Your task to perform on an android device: uninstall "PlayWell" Image 0: 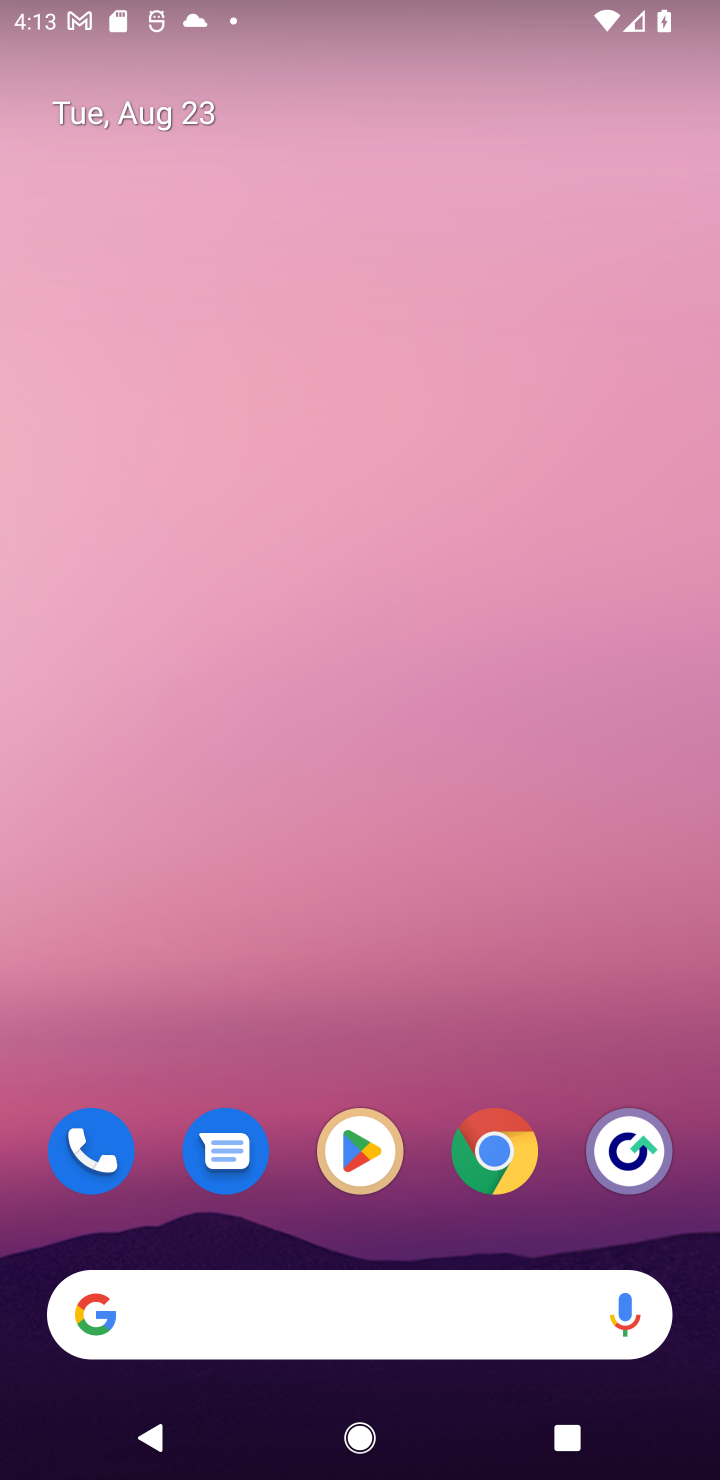
Step 0: click (359, 1145)
Your task to perform on an android device: uninstall "PlayWell" Image 1: 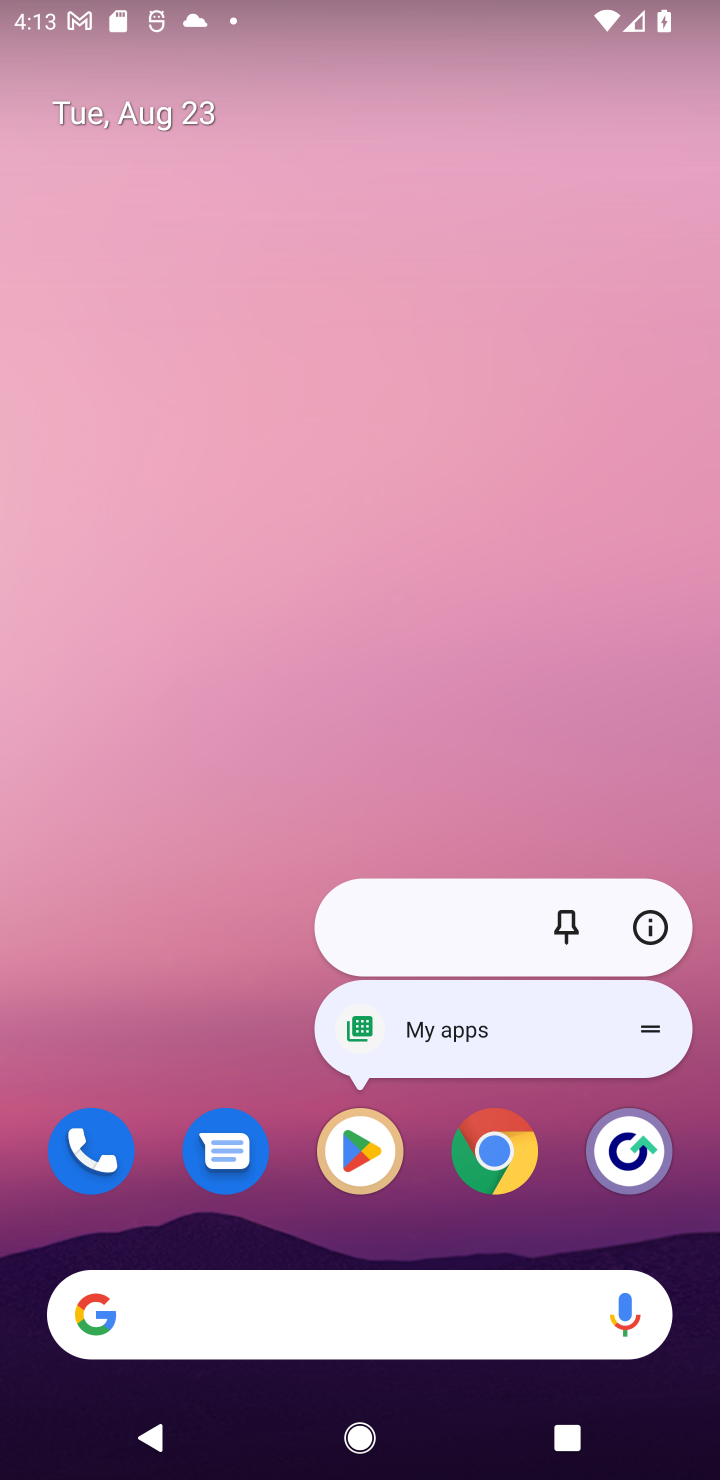
Step 1: click (359, 1148)
Your task to perform on an android device: uninstall "PlayWell" Image 2: 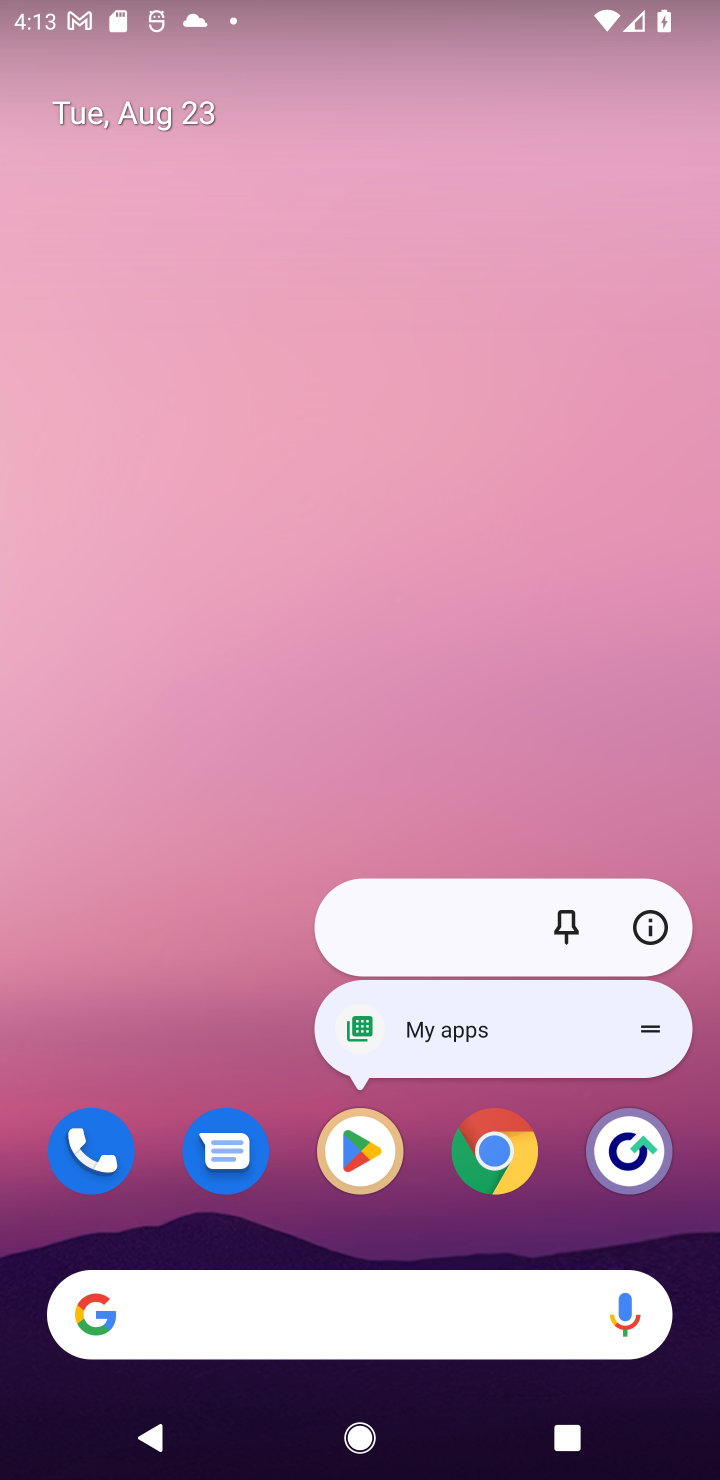
Step 2: click (359, 1145)
Your task to perform on an android device: uninstall "PlayWell" Image 3: 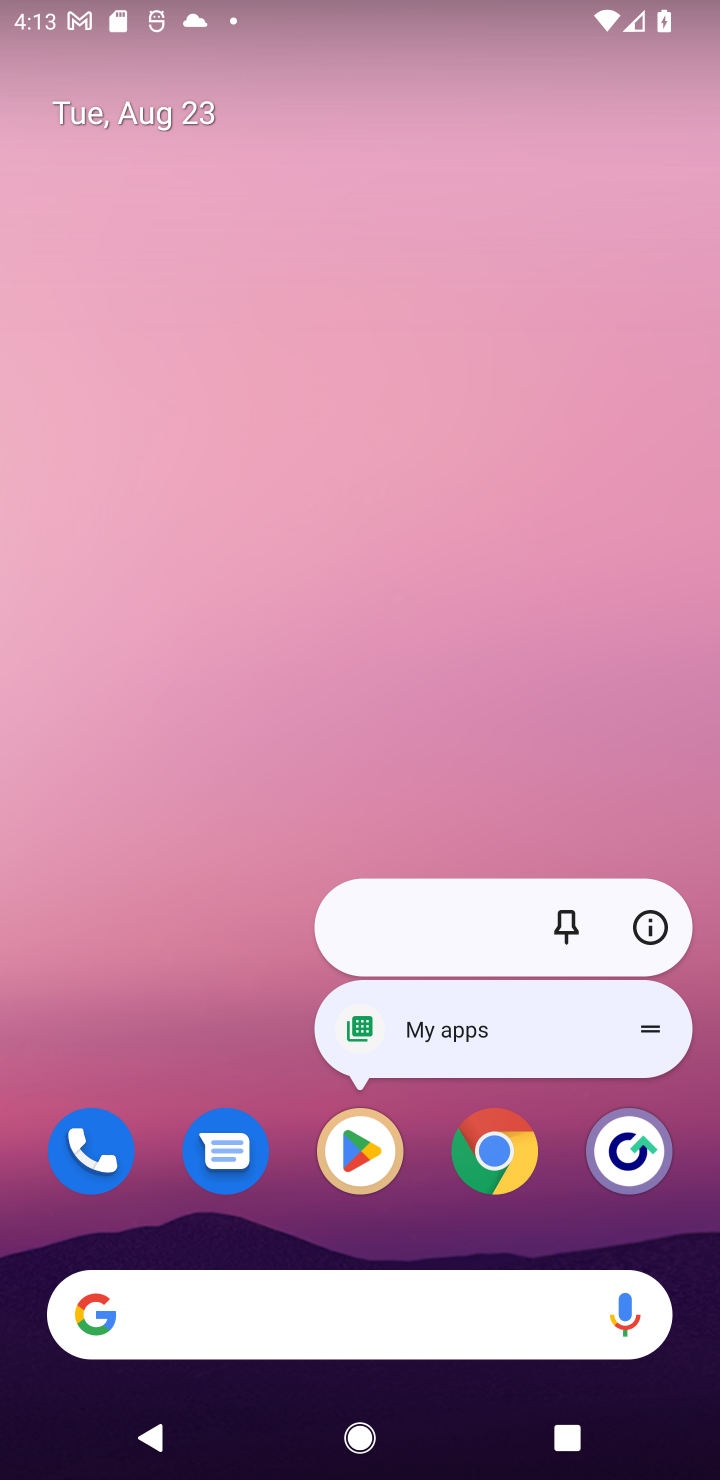
Step 3: click (349, 1159)
Your task to perform on an android device: uninstall "PlayWell" Image 4: 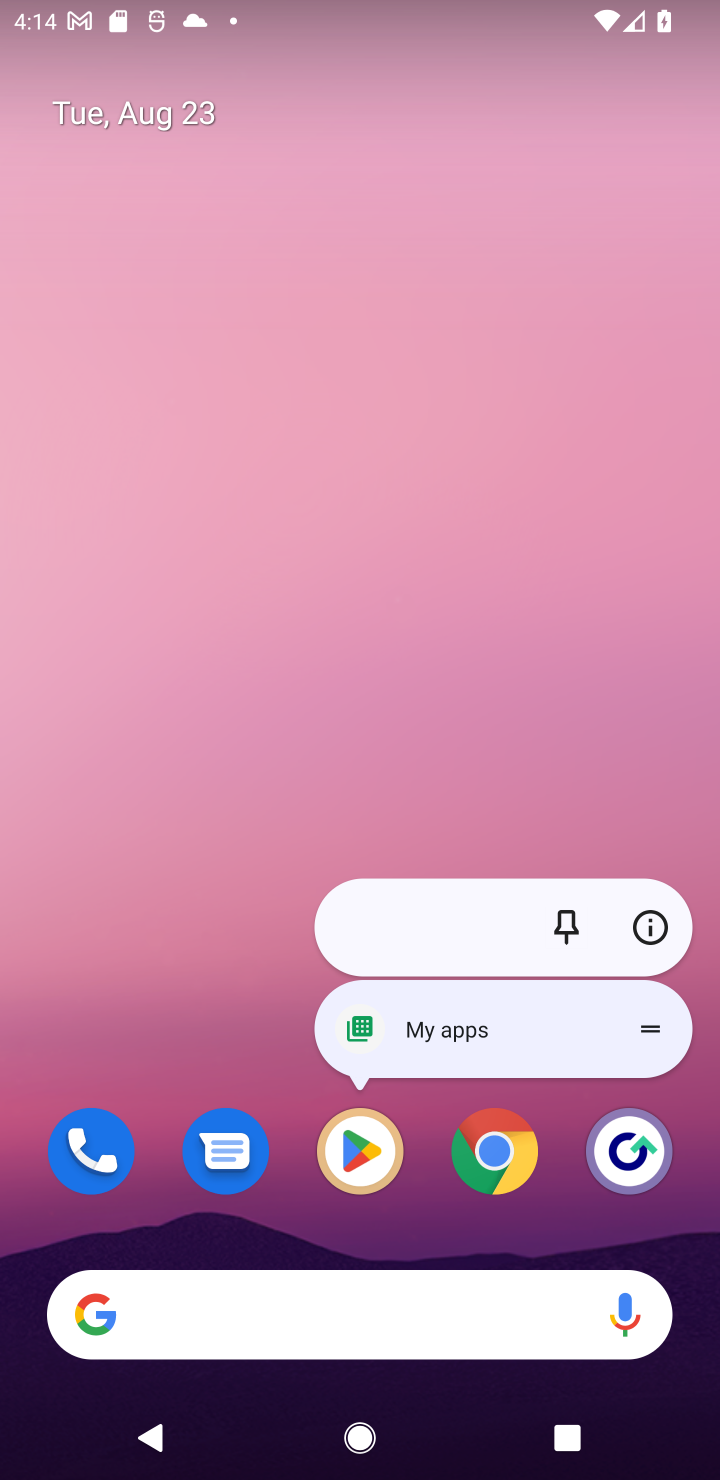
Step 4: click (349, 1157)
Your task to perform on an android device: uninstall "PlayWell" Image 5: 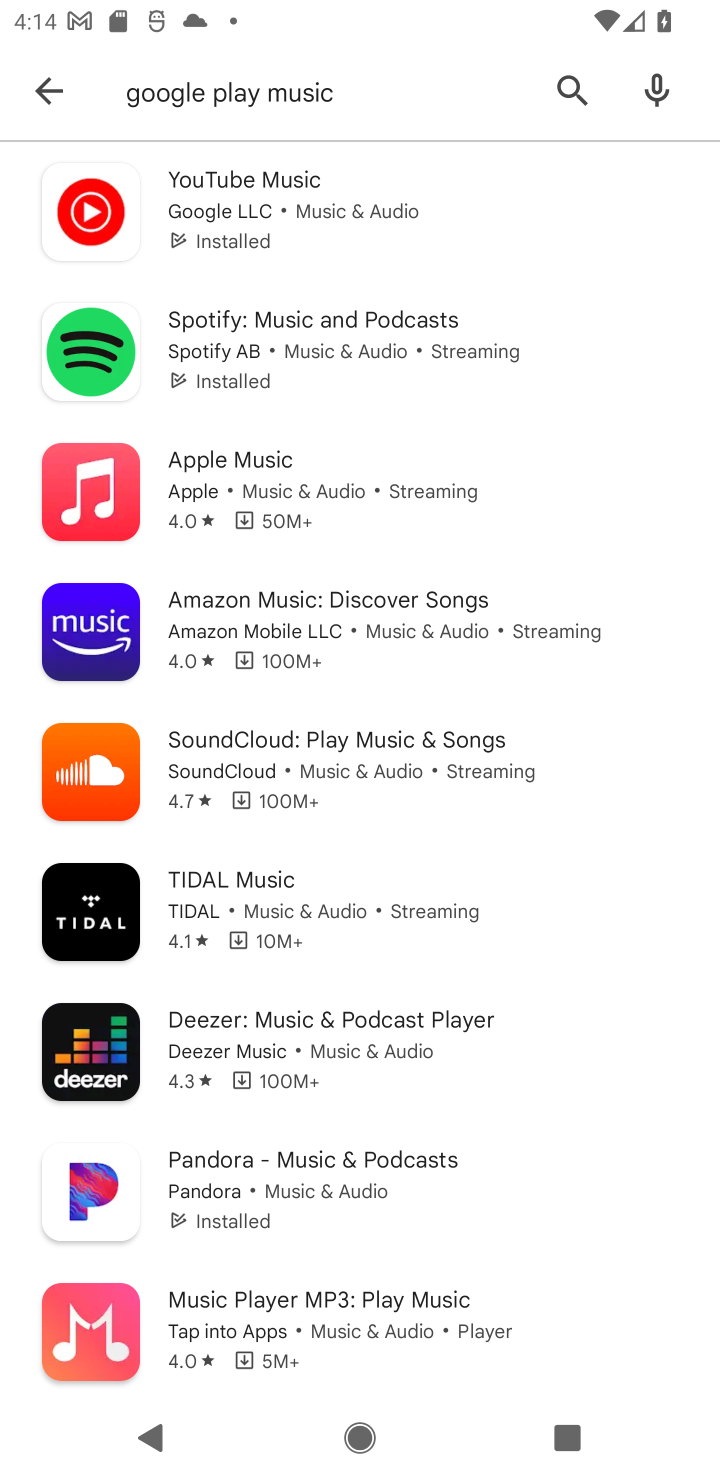
Step 5: click (571, 83)
Your task to perform on an android device: uninstall "PlayWell" Image 6: 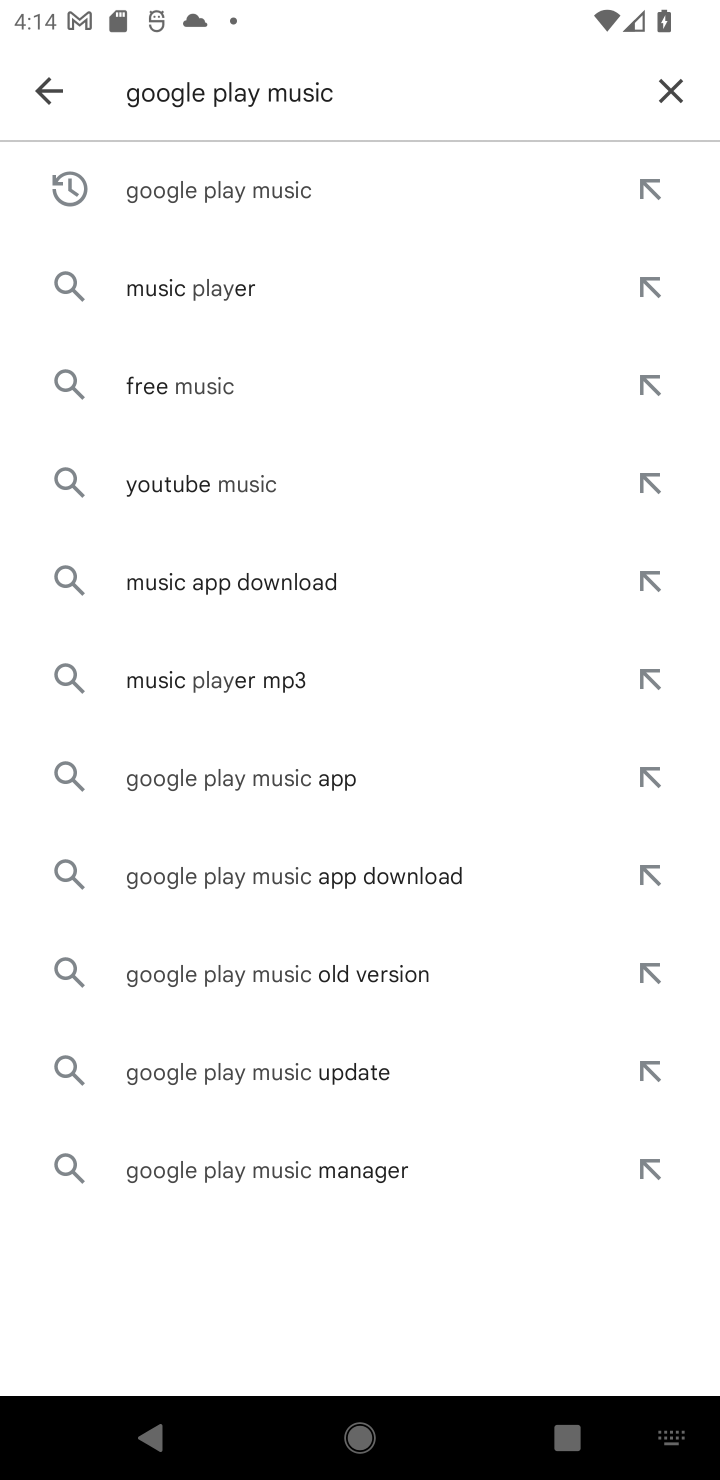
Step 6: click (661, 79)
Your task to perform on an android device: uninstall "PlayWell" Image 7: 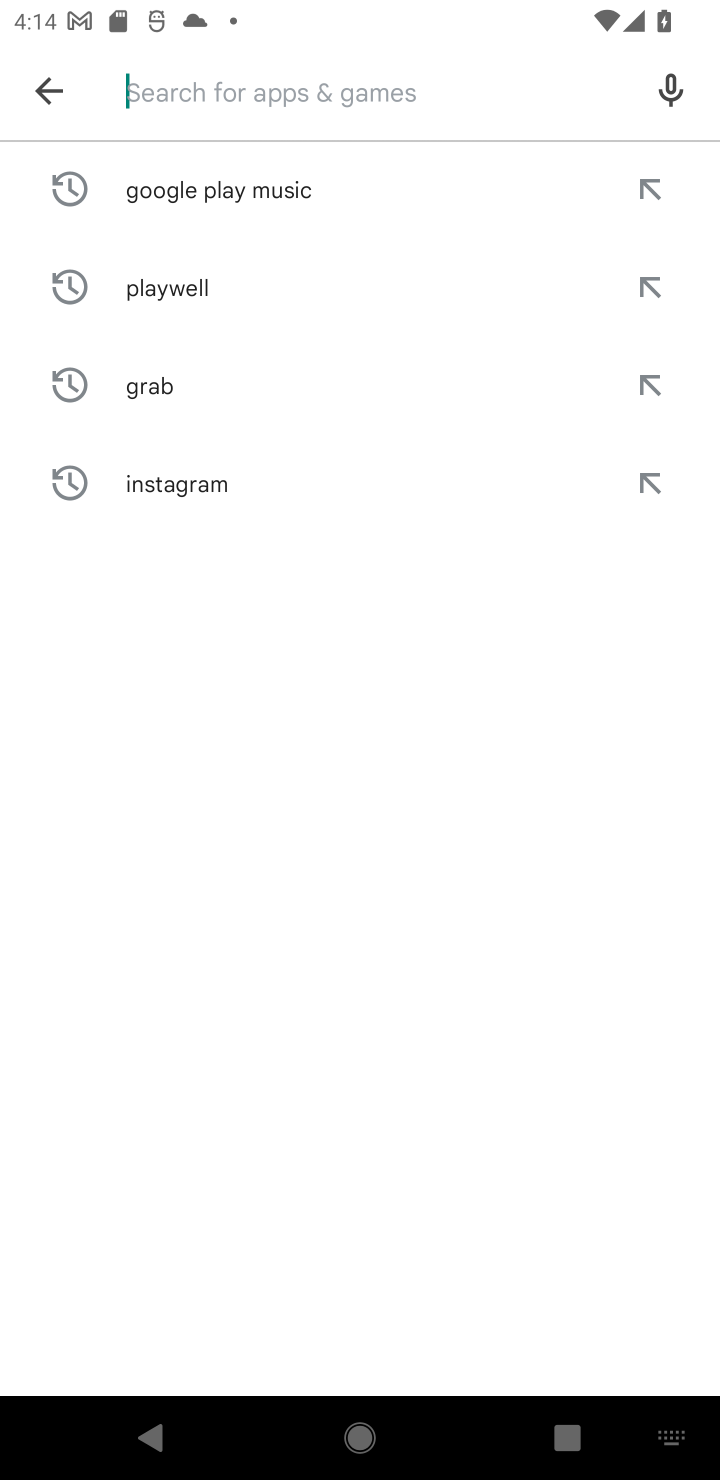
Step 7: type "PlayWell"
Your task to perform on an android device: uninstall "PlayWell" Image 8: 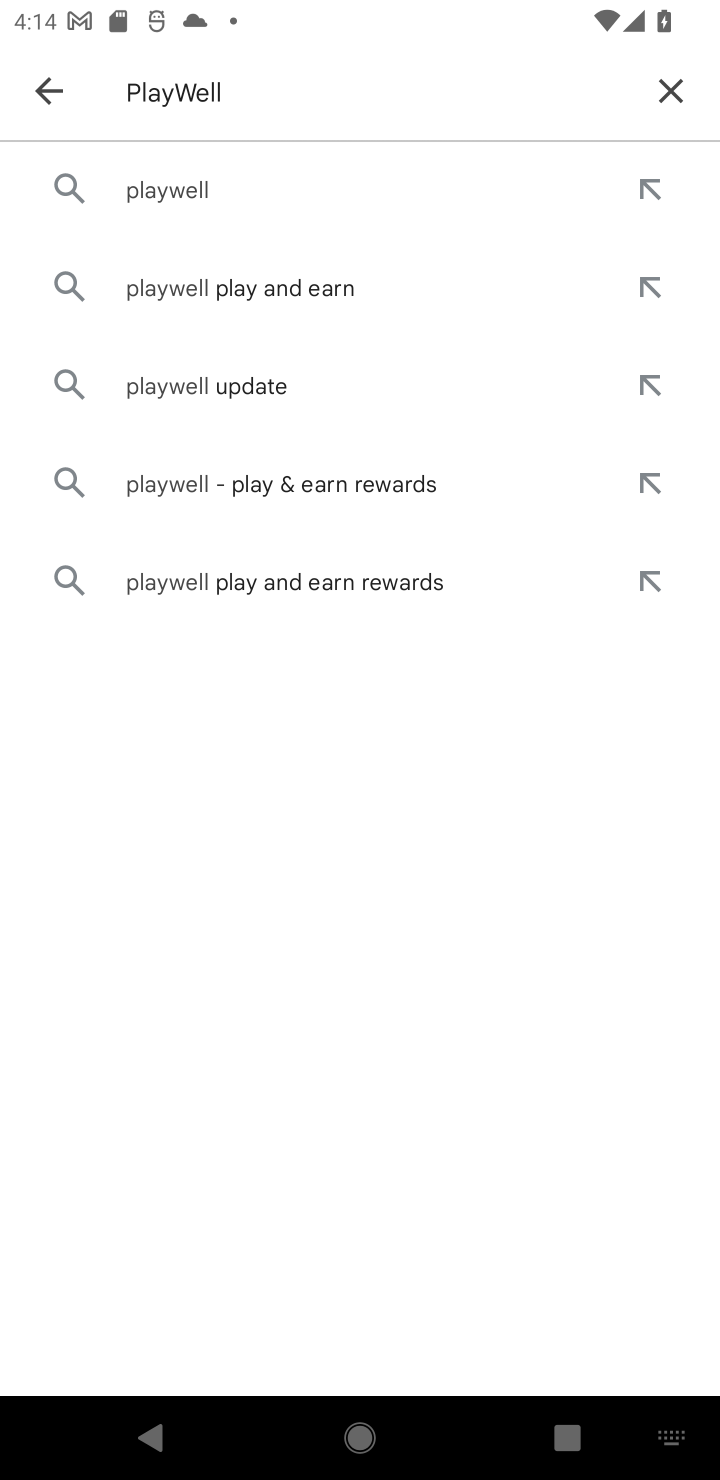
Step 8: click (170, 192)
Your task to perform on an android device: uninstall "PlayWell" Image 9: 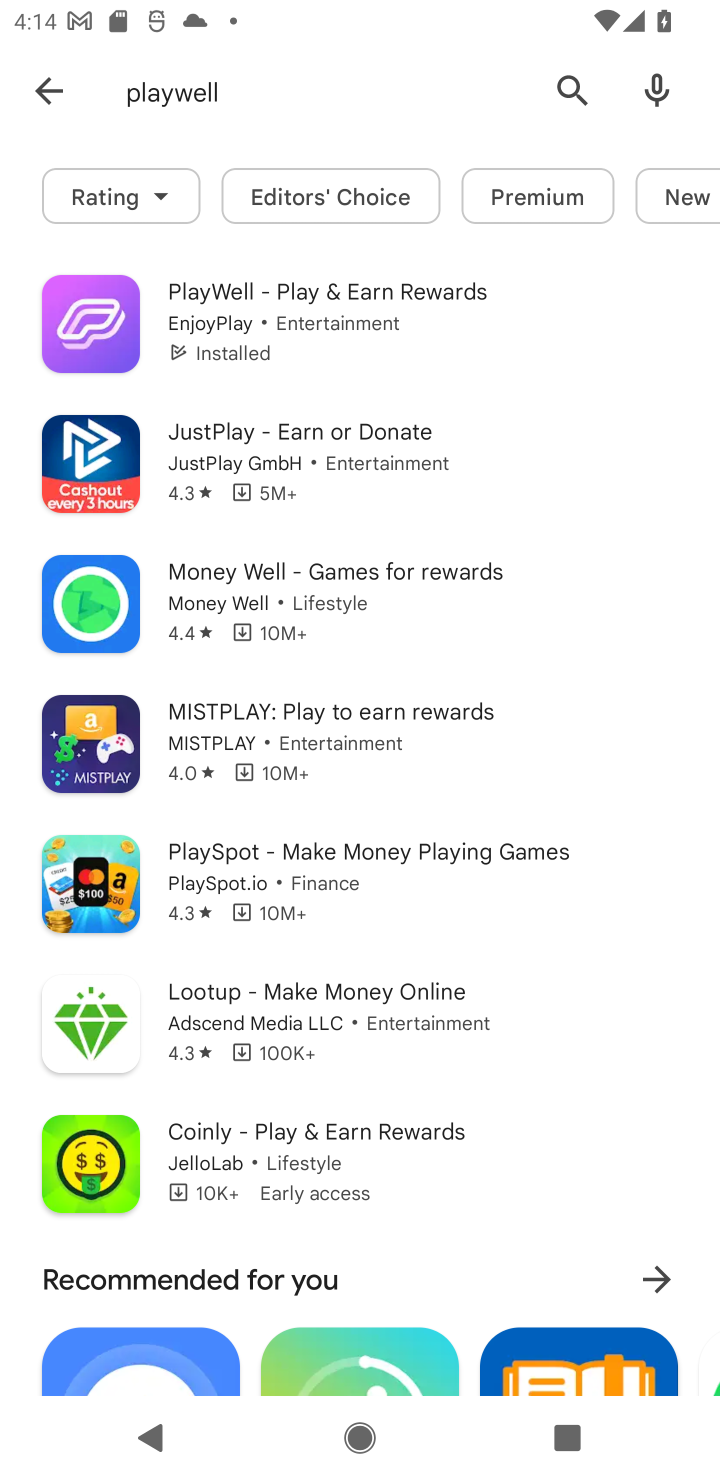
Step 9: click (241, 332)
Your task to perform on an android device: uninstall "PlayWell" Image 10: 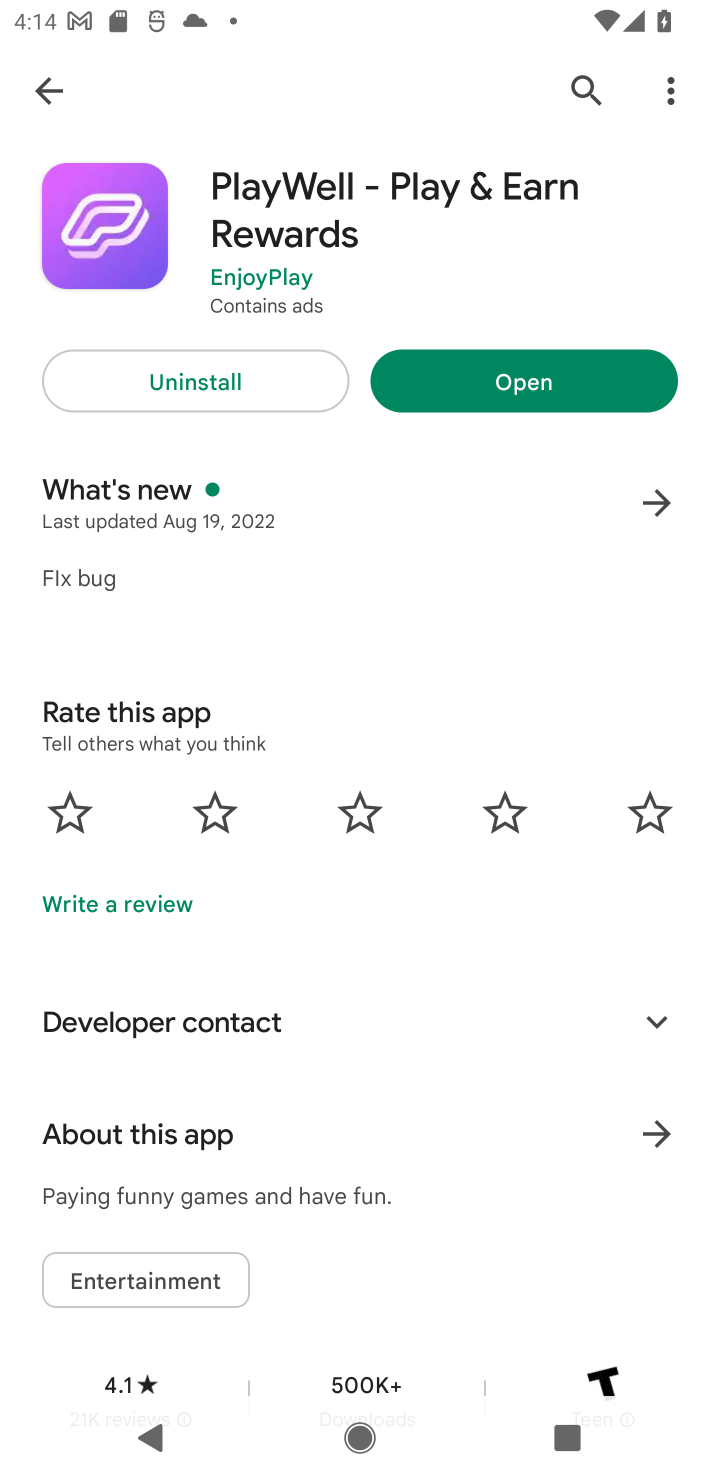
Step 10: click (197, 382)
Your task to perform on an android device: uninstall "PlayWell" Image 11: 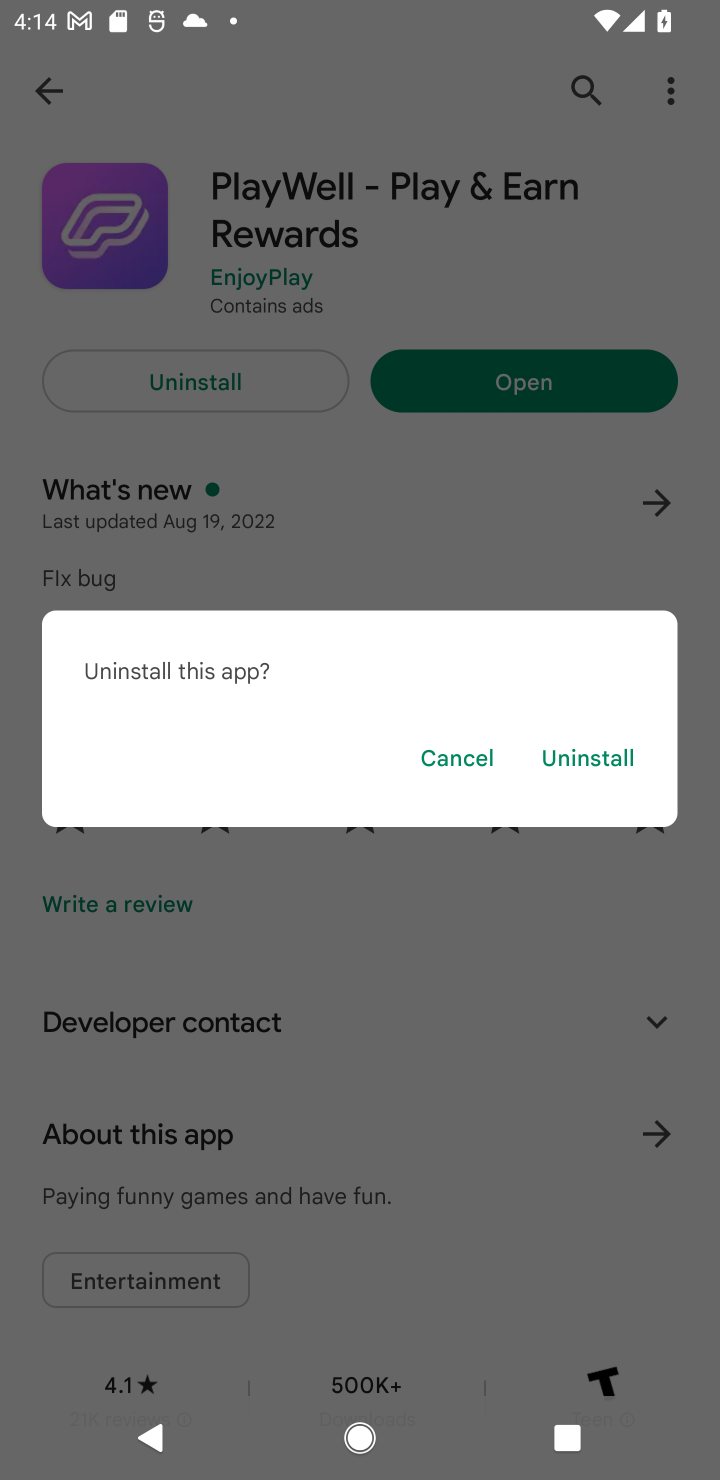
Step 11: click (600, 755)
Your task to perform on an android device: uninstall "PlayWell" Image 12: 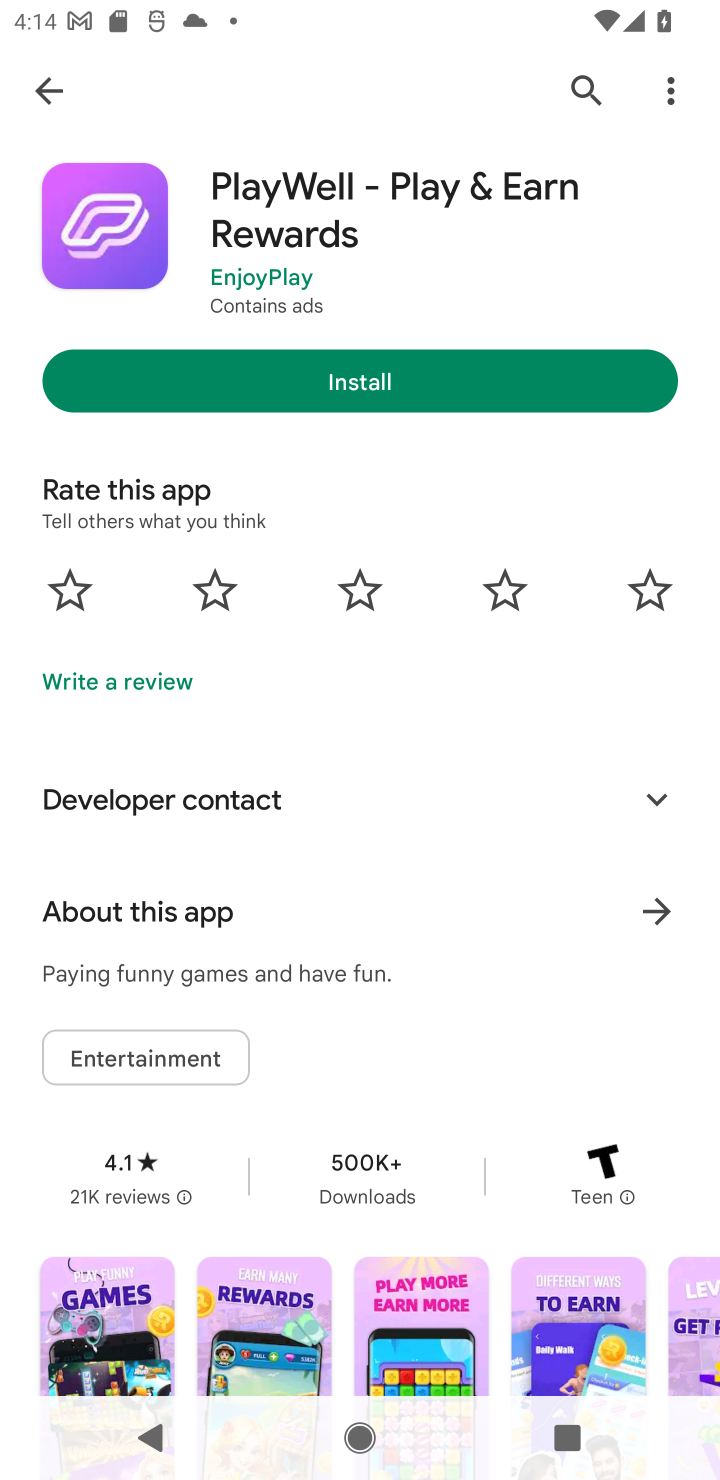
Step 12: task complete